Your task to perform on an android device: Open settings Image 0: 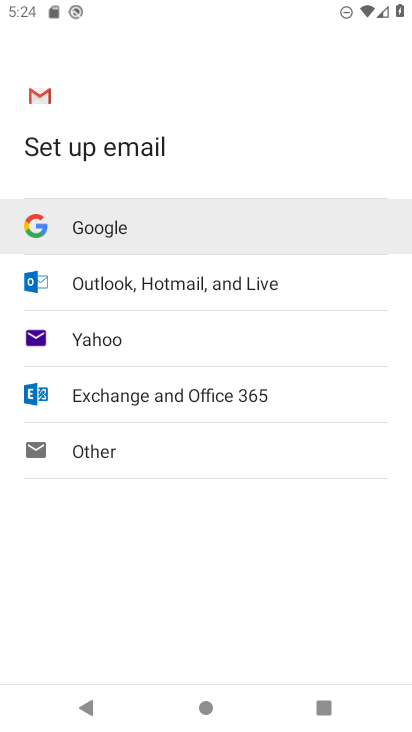
Step 0: drag from (237, 632) to (168, 188)
Your task to perform on an android device: Open settings Image 1: 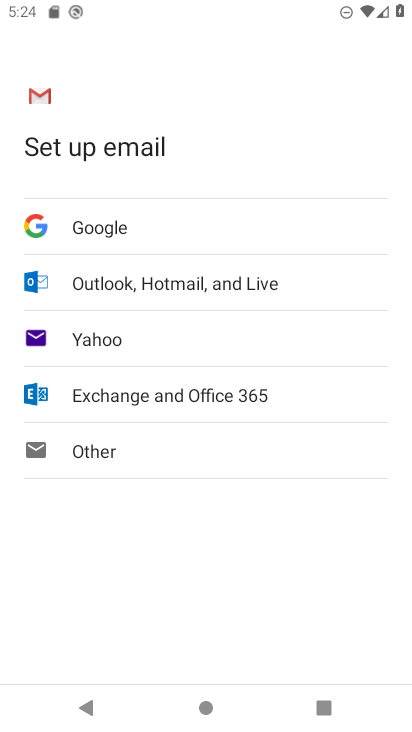
Step 1: press back button
Your task to perform on an android device: Open settings Image 2: 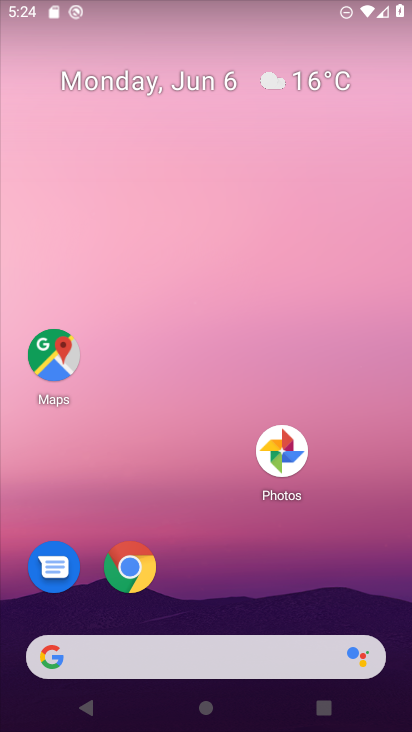
Step 2: drag from (260, 720) to (193, 35)
Your task to perform on an android device: Open settings Image 3: 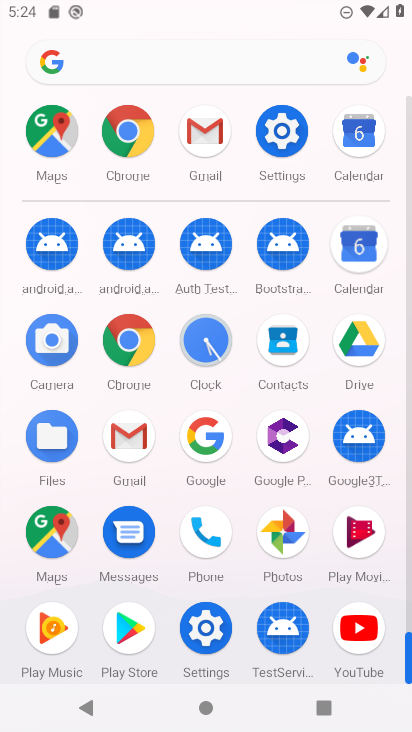
Step 3: click (277, 151)
Your task to perform on an android device: Open settings Image 4: 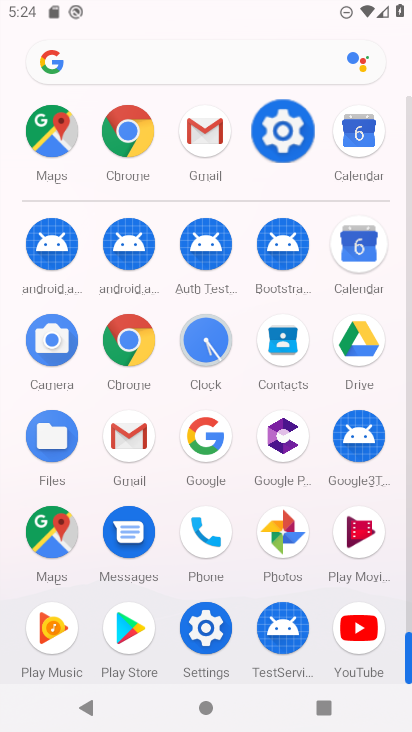
Step 4: click (274, 151)
Your task to perform on an android device: Open settings Image 5: 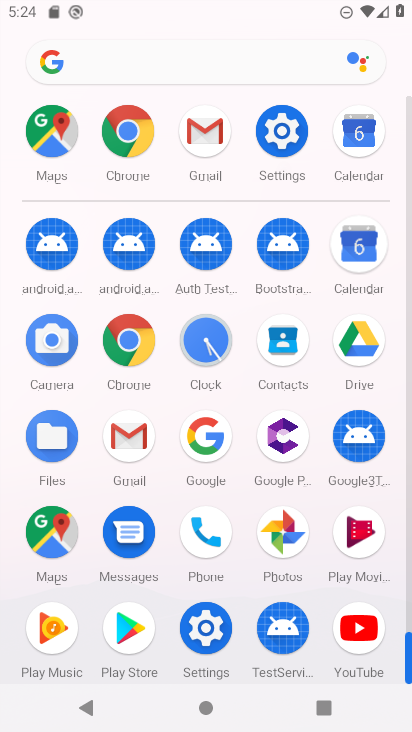
Step 5: click (273, 150)
Your task to perform on an android device: Open settings Image 6: 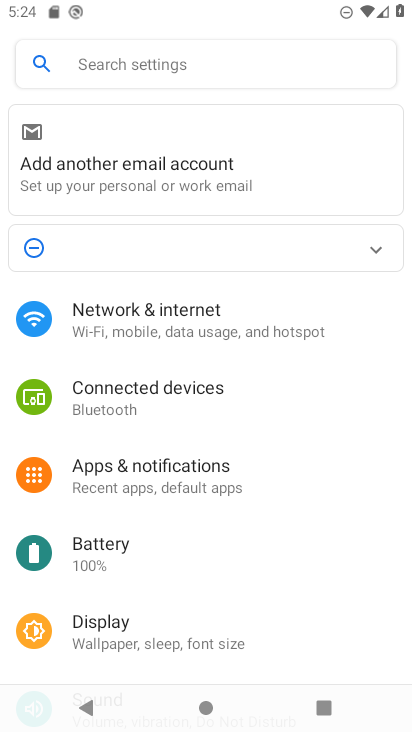
Step 6: task complete